Your task to perform on an android device: remove spam from my inbox in the gmail app Image 0: 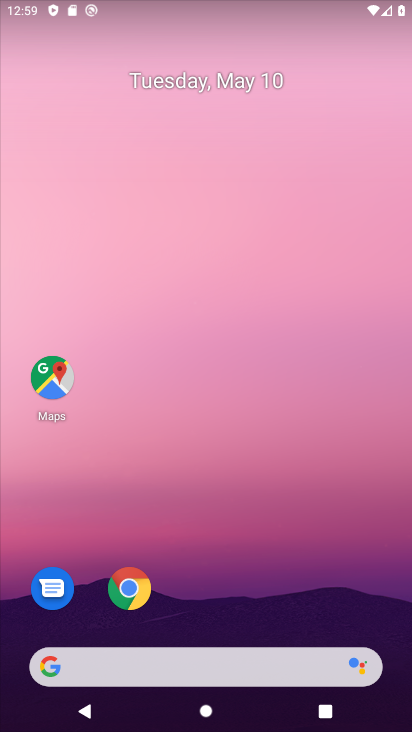
Step 0: drag from (271, 671) to (345, 147)
Your task to perform on an android device: remove spam from my inbox in the gmail app Image 1: 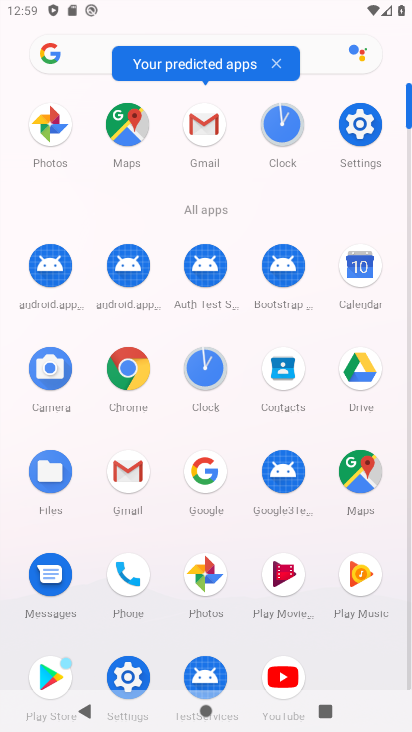
Step 1: click (212, 127)
Your task to perform on an android device: remove spam from my inbox in the gmail app Image 2: 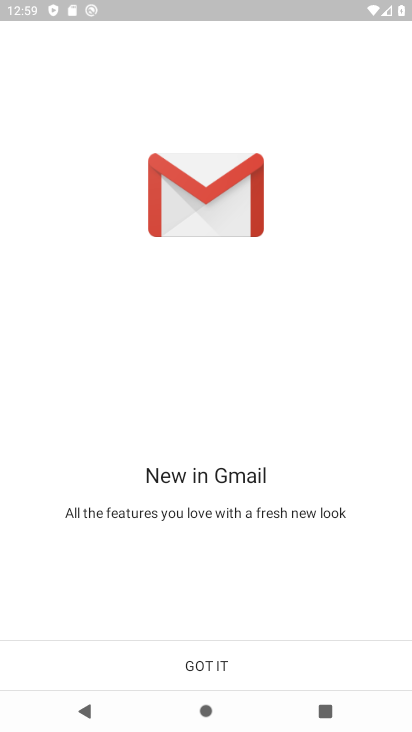
Step 2: click (177, 667)
Your task to perform on an android device: remove spam from my inbox in the gmail app Image 3: 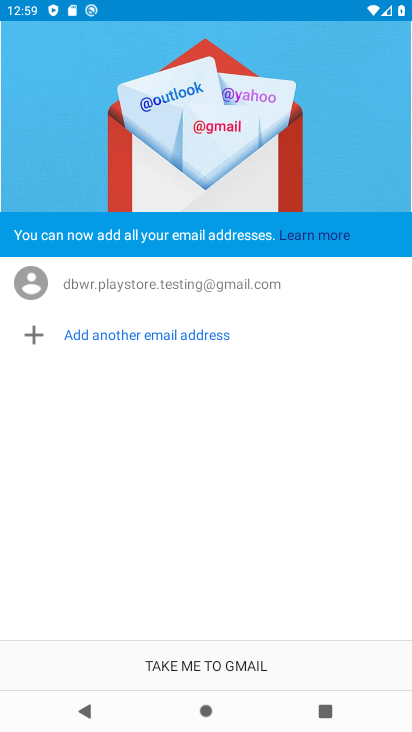
Step 3: click (197, 660)
Your task to perform on an android device: remove spam from my inbox in the gmail app Image 4: 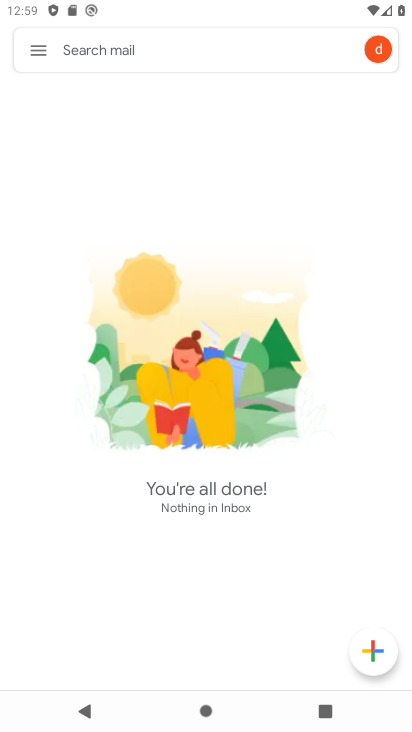
Step 4: click (24, 55)
Your task to perform on an android device: remove spam from my inbox in the gmail app Image 5: 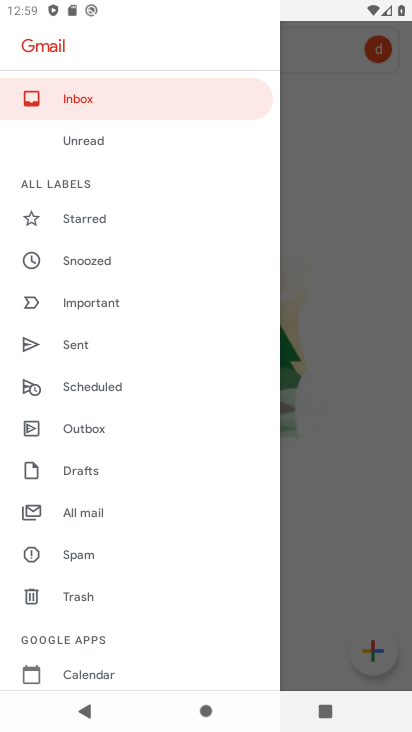
Step 5: click (89, 562)
Your task to perform on an android device: remove spam from my inbox in the gmail app Image 6: 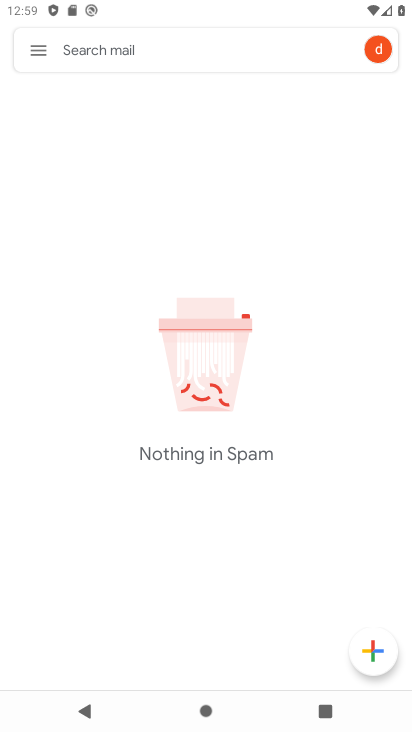
Step 6: task complete